Your task to perform on an android device: Open Chrome and go to settings Image 0: 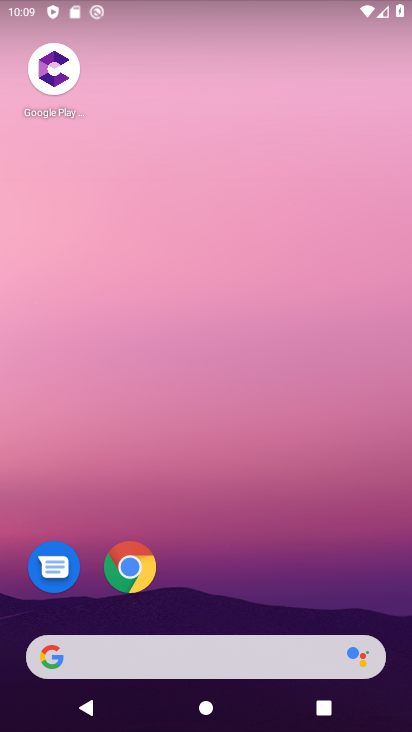
Step 0: click (124, 568)
Your task to perform on an android device: Open Chrome and go to settings Image 1: 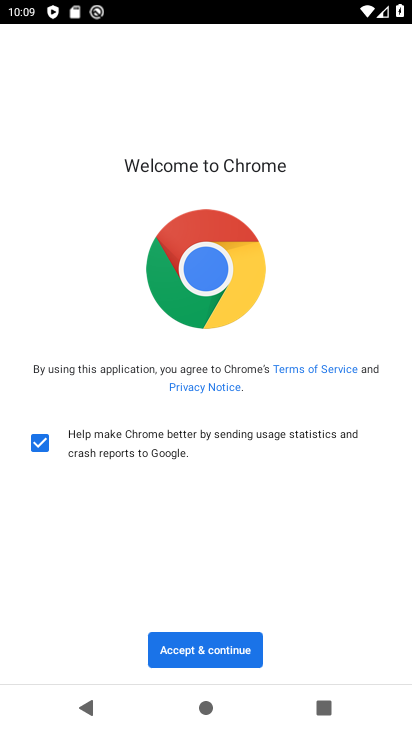
Step 1: click (233, 651)
Your task to perform on an android device: Open Chrome and go to settings Image 2: 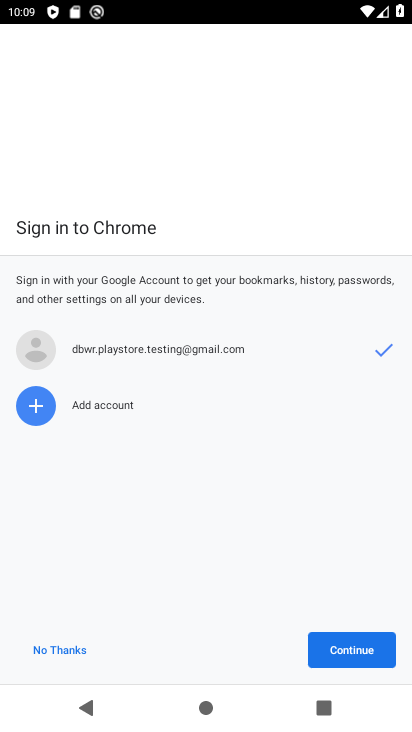
Step 2: click (337, 651)
Your task to perform on an android device: Open Chrome and go to settings Image 3: 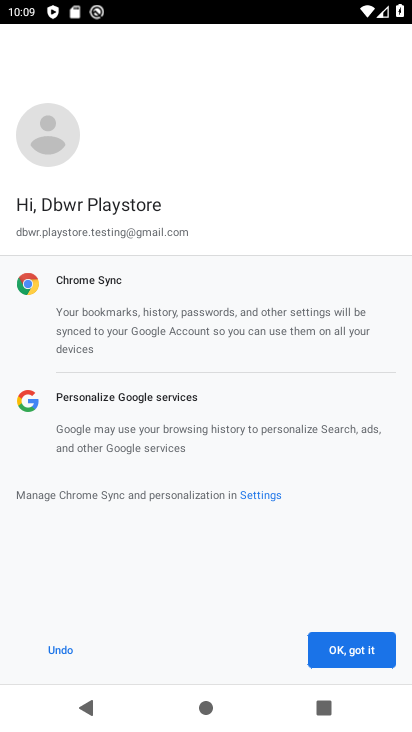
Step 3: click (337, 649)
Your task to perform on an android device: Open Chrome and go to settings Image 4: 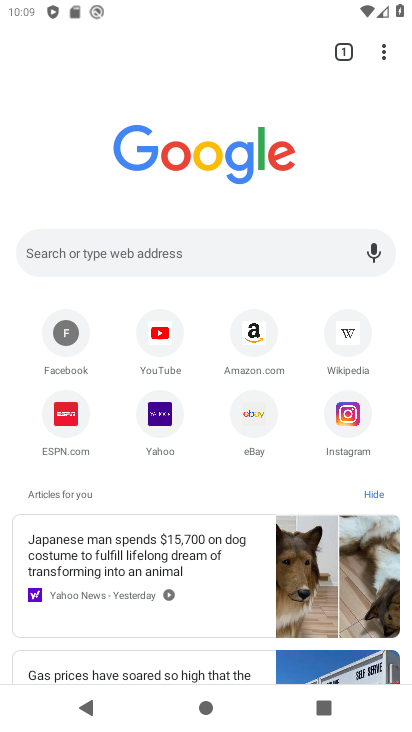
Step 4: click (381, 43)
Your task to perform on an android device: Open Chrome and go to settings Image 5: 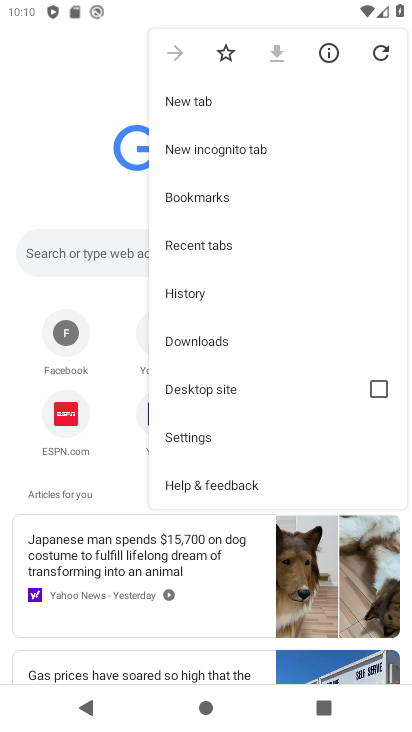
Step 5: click (209, 425)
Your task to perform on an android device: Open Chrome and go to settings Image 6: 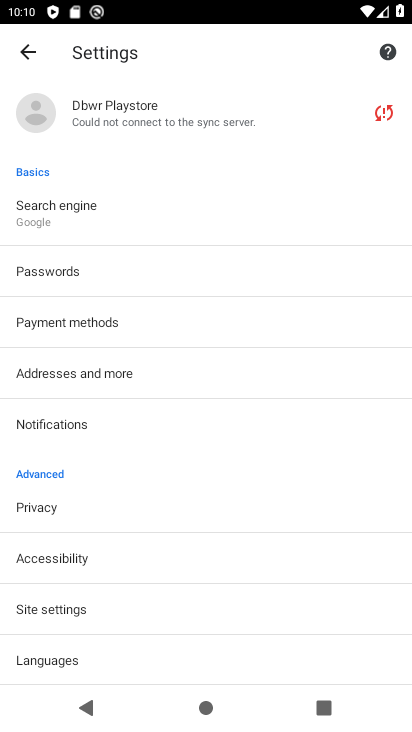
Step 6: task complete